Your task to perform on an android device: find photos in the google photos app Image 0: 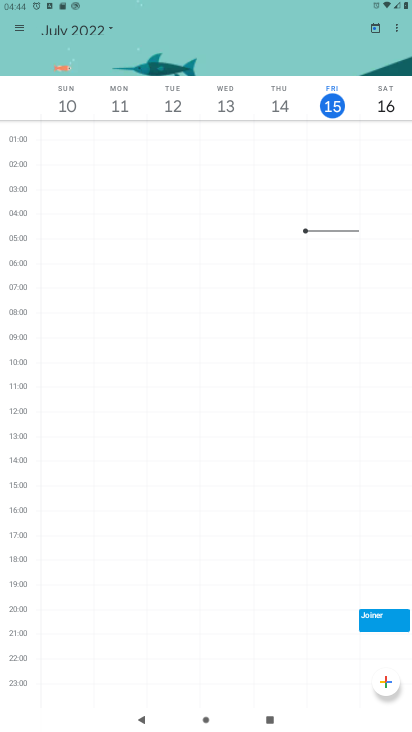
Step 0: press home button
Your task to perform on an android device: find photos in the google photos app Image 1: 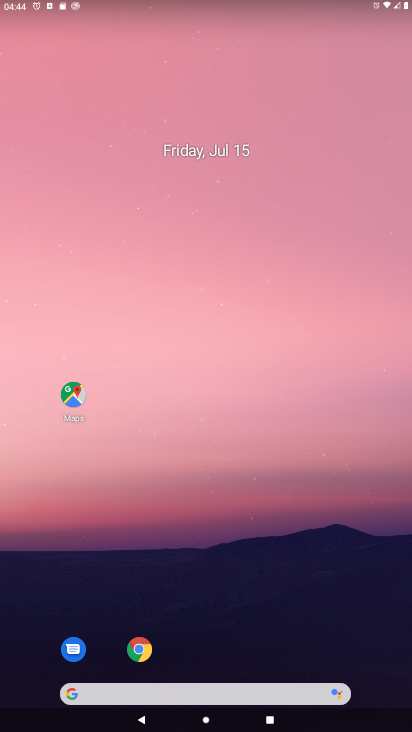
Step 1: drag from (371, 658) to (327, 123)
Your task to perform on an android device: find photos in the google photos app Image 2: 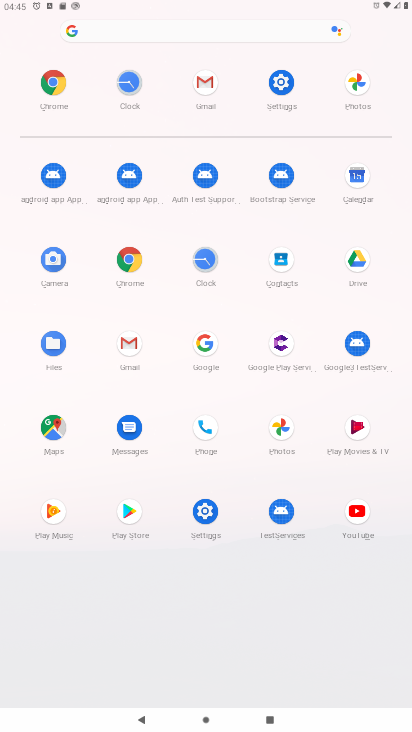
Step 2: click (279, 427)
Your task to perform on an android device: find photos in the google photos app Image 3: 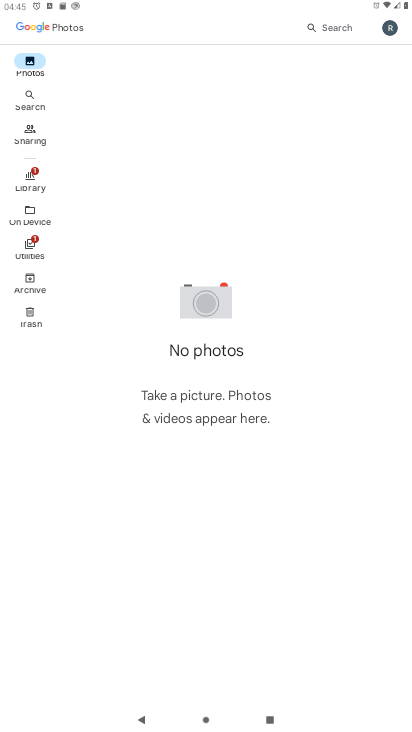
Step 3: task complete